Your task to perform on an android device: Open Chrome and go to settings Image 0: 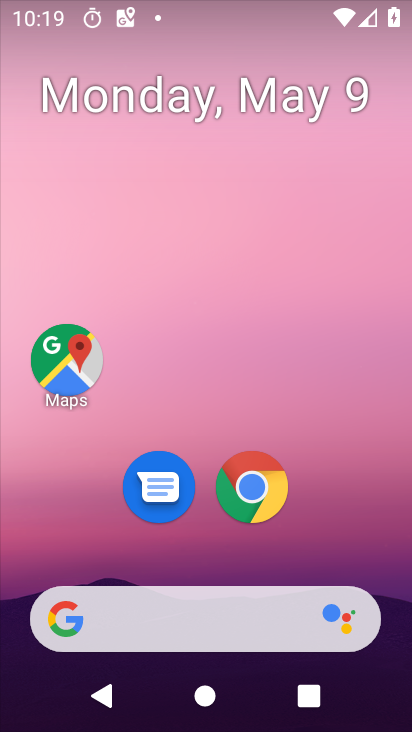
Step 0: click (225, 498)
Your task to perform on an android device: Open Chrome and go to settings Image 1: 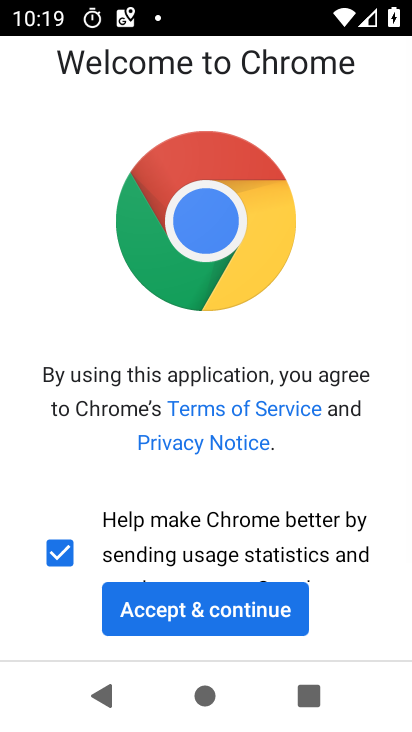
Step 1: click (215, 631)
Your task to perform on an android device: Open Chrome and go to settings Image 2: 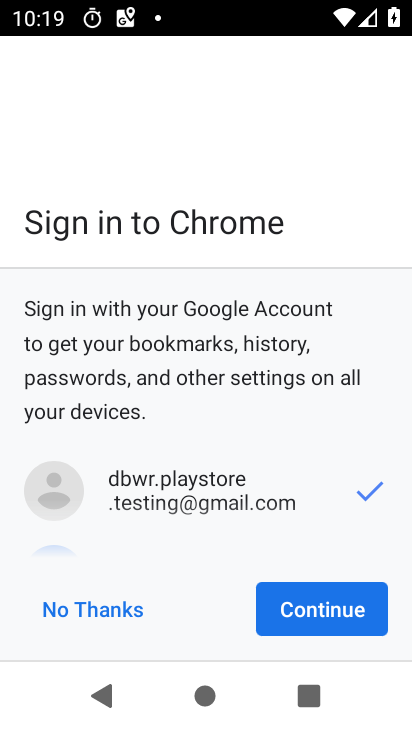
Step 2: click (309, 627)
Your task to perform on an android device: Open Chrome and go to settings Image 3: 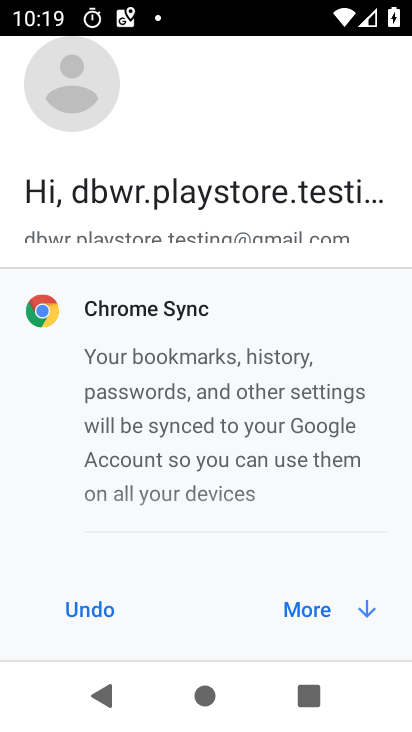
Step 3: click (301, 618)
Your task to perform on an android device: Open Chrome and go to settings Image 4: 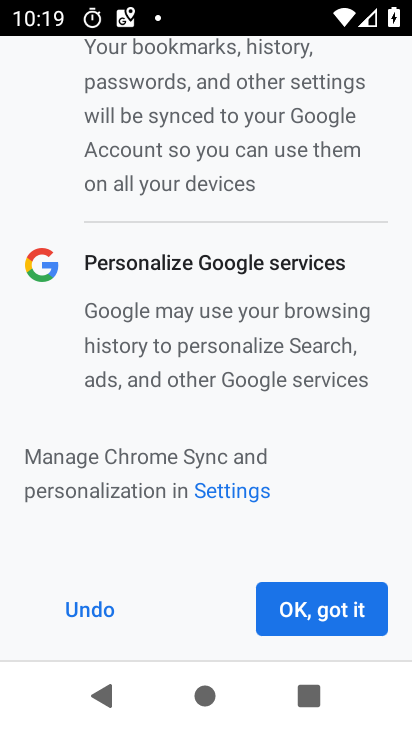
Step 4: click (294, 608)
Your task to perform on an android device: Open Chrome and go to settings Image 5: 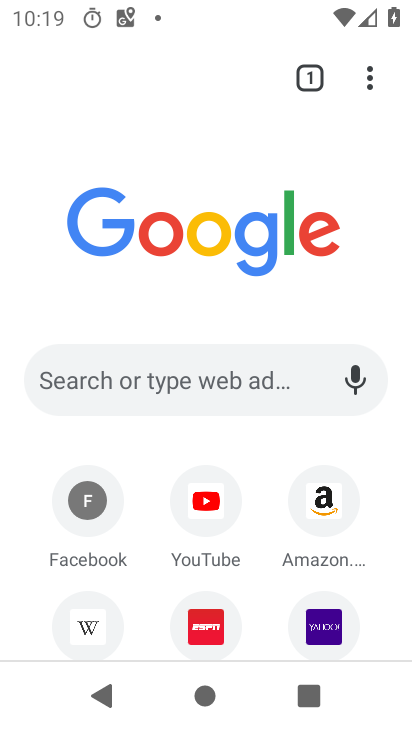
Step 5: task complete